Your task to perform on an android device: Open the map Image 0: 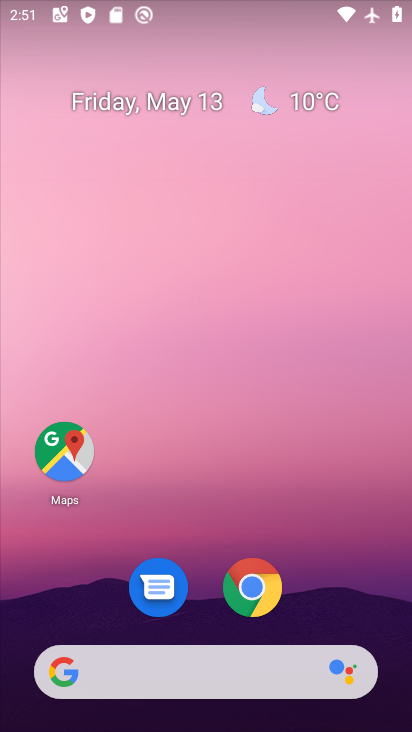
Step 0: click (44, 468)
Your task to perform on an android device: Open the map Image 1: 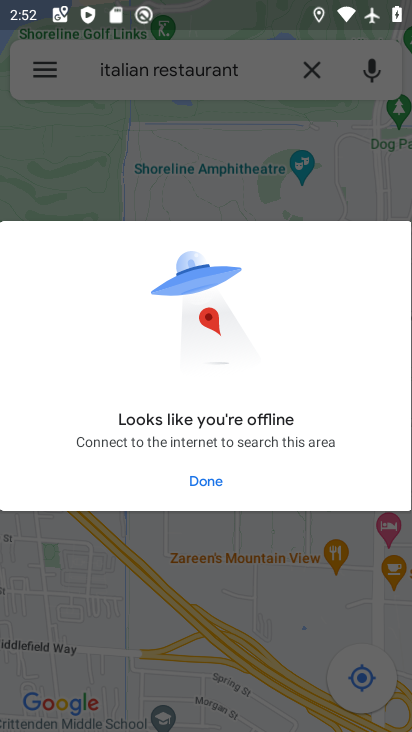
Step 1: press back button
Your task to perform on an android device: Open the map Image 2: 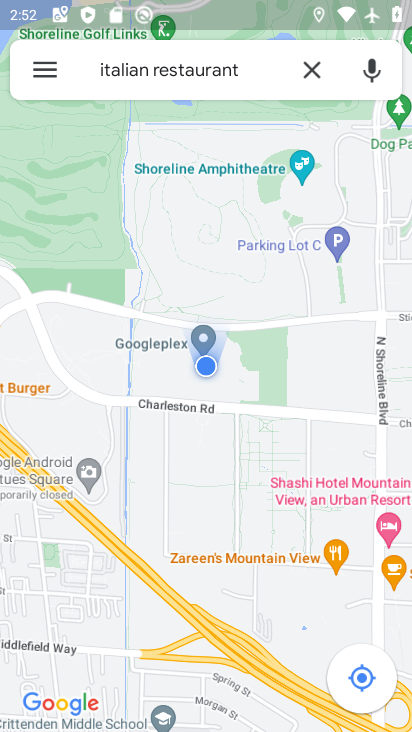
Step 2: click (211, 488)
Your task to perform on an android device: Open the map Image 3: 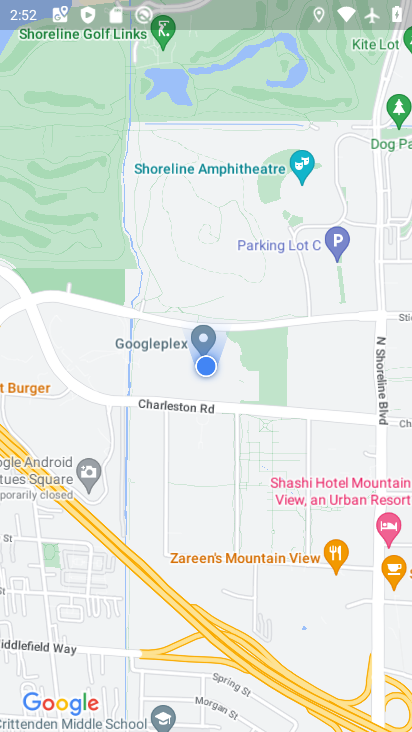
Step 3: click (138, 555)
Your task to perform on an android device: Open the map Image 4: 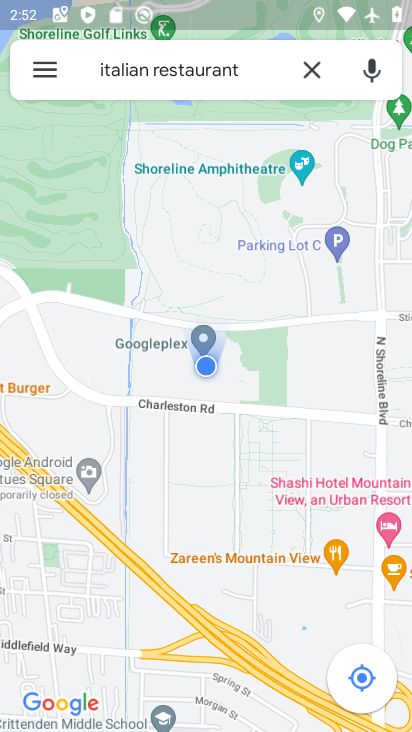
Step 4: task complete